Your task to perform on an android device: find snoozed emails in the gmail app Image 0: 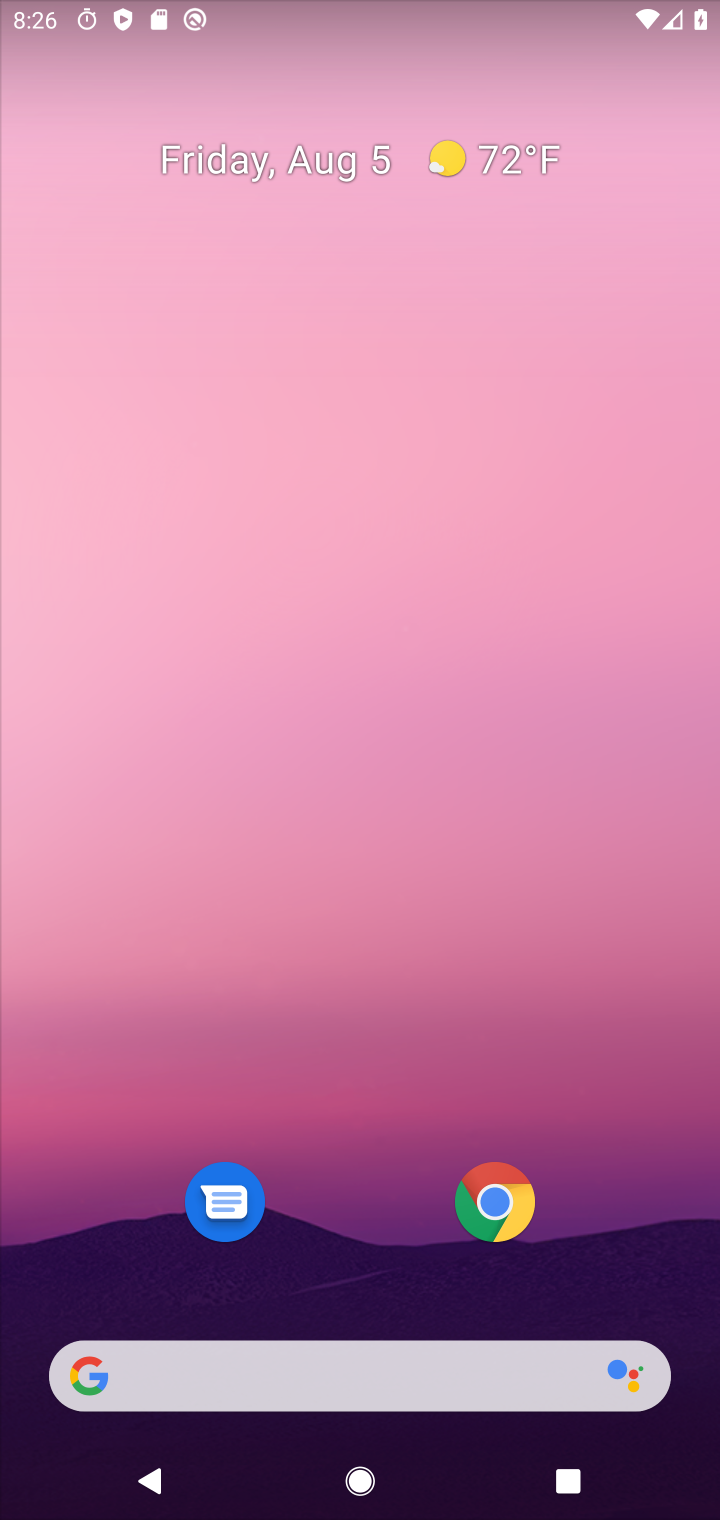
Step 0: drag from (389, 779) to (456, 348)
Your task to perform on an android device: find snoozed emails in the gmail app Image 1: 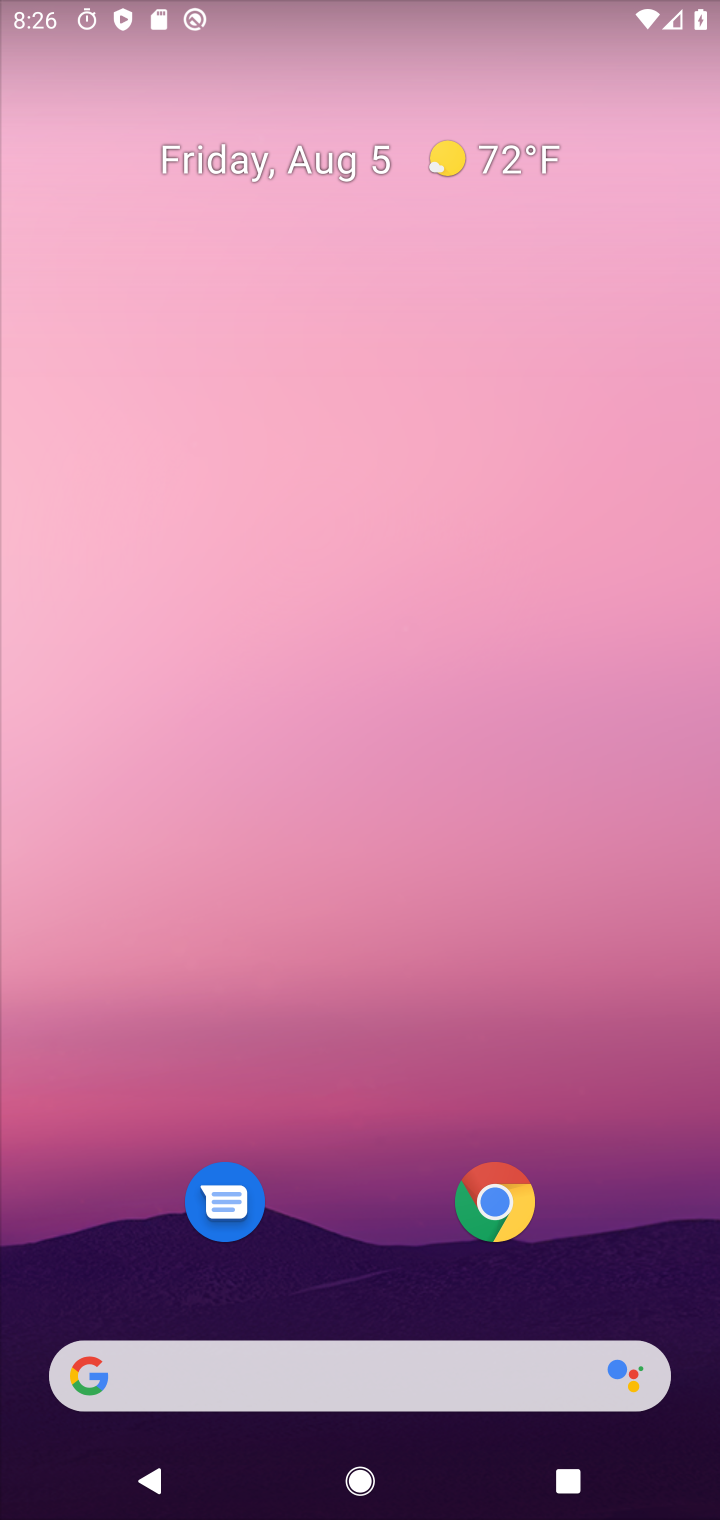
Step 1: drag from (309, 1222) to (417, 422)
Your task to perform on an android device: find snoozed emails in the gmail app Image 2: 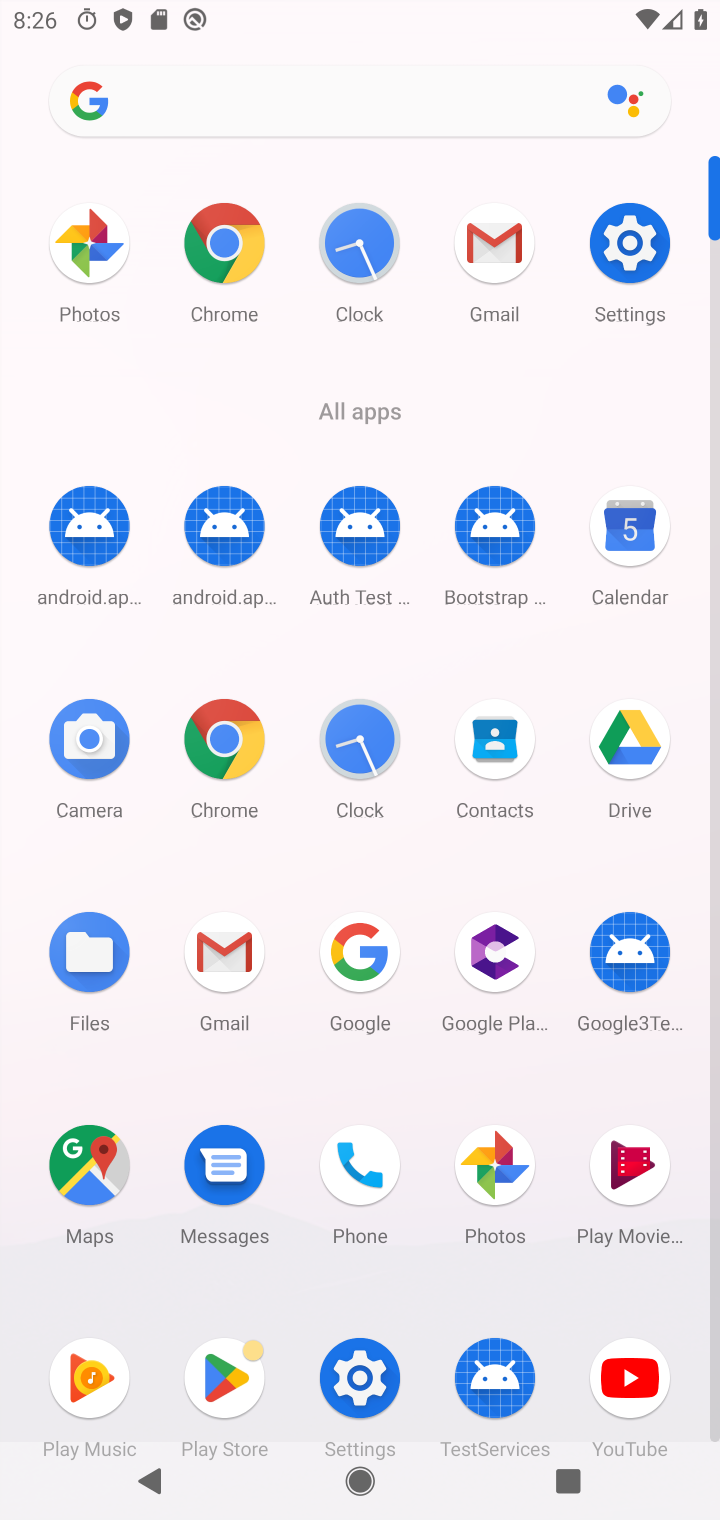
Step 2: click (228, 943)
Your task to perform on an android device: find snoozed emails in the gmail app Image 3: 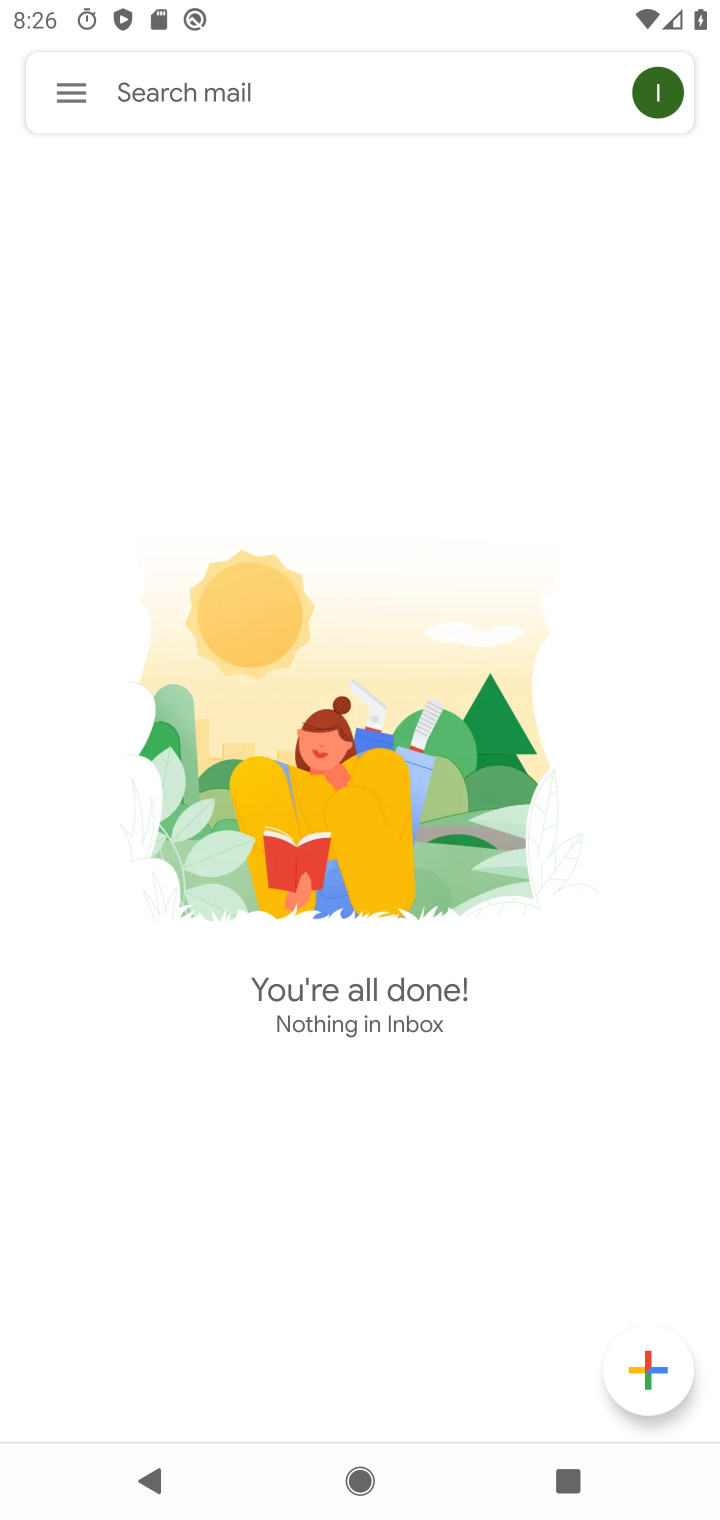
Step 3: click (79, 91)
Your task to perform on an android device: find snoozed emails in the gmail app Image 4: 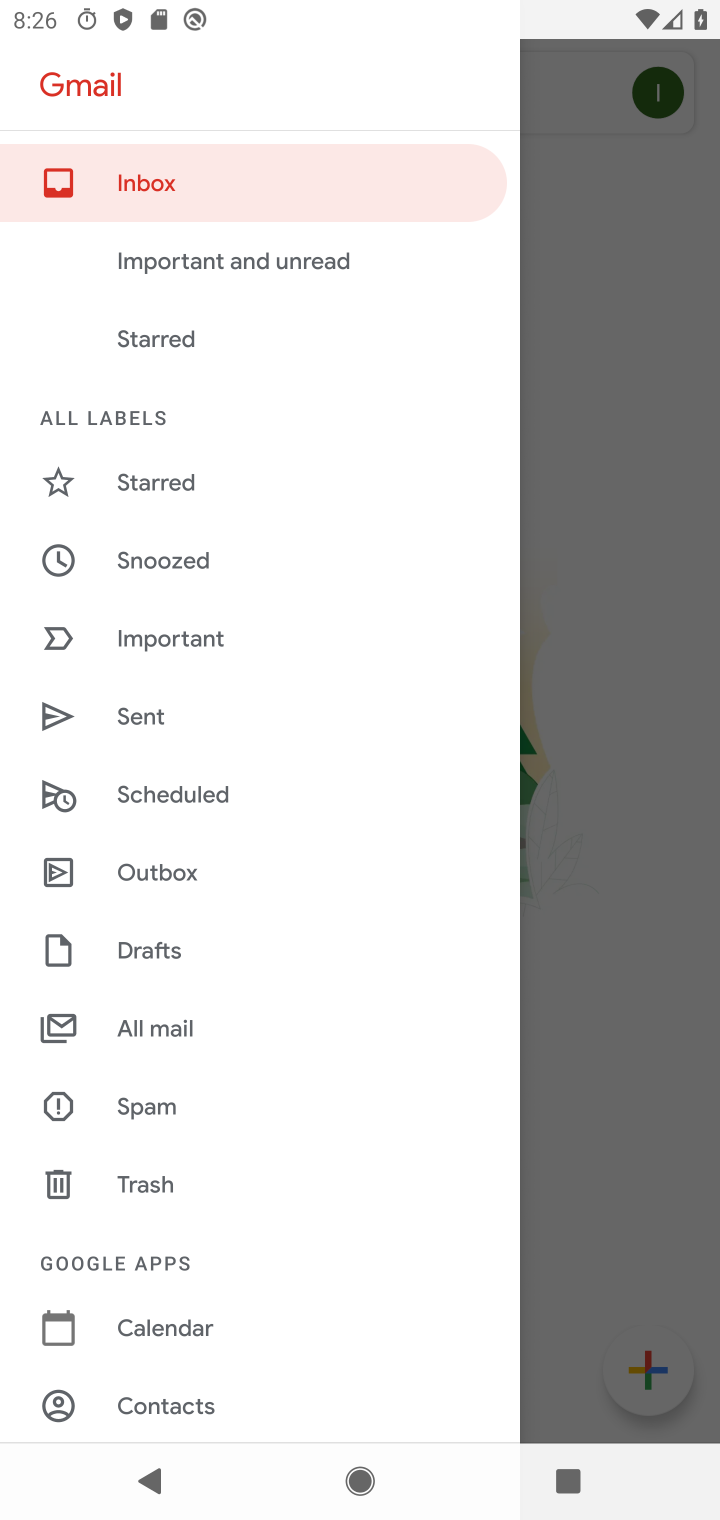
Step 4: click (187, 560)
Your task to perform on an android device: find snoozed emails in the gmail app Image 5: 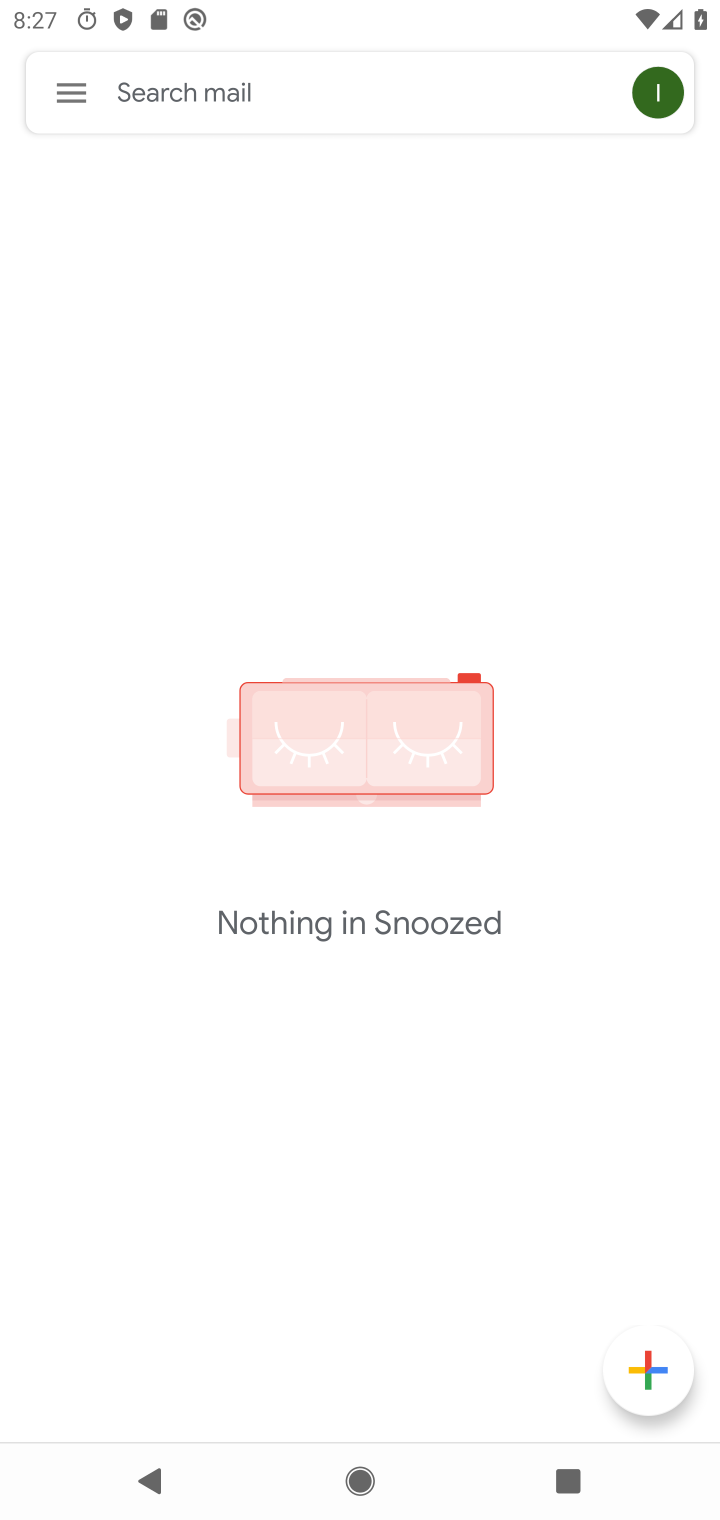
Step 5: task complete